Your task to perform on an android device: What's the weather going to be this weekend? Image 0: 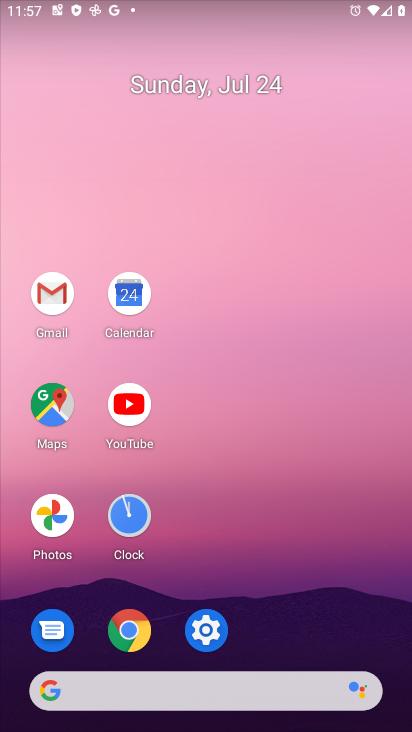
Step 0: click (166, 677)
Your task to perform on an android device: What's the weather going to be this weekend? Image 1: 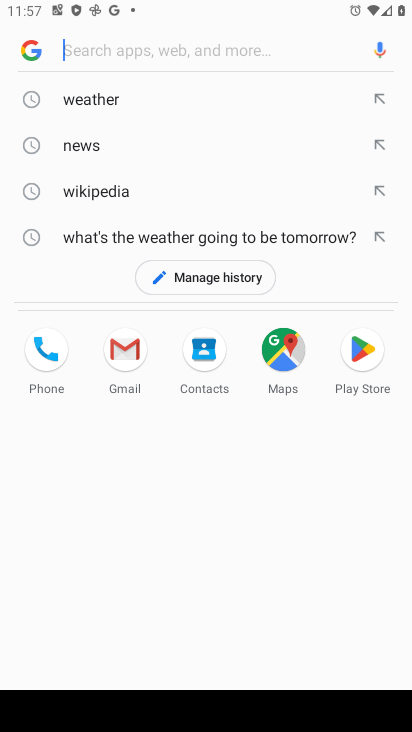
Step 1: click (99, 92)
Your task to perform on an android device: What's the weather going to be this weekend? Image 2: 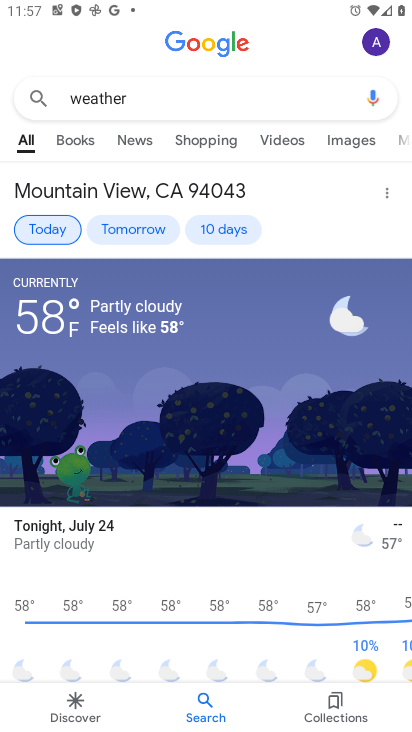
Step 2: click (220, 222)
Your task to perform on an android device: What's the weather going to be this weekend? Image 3: 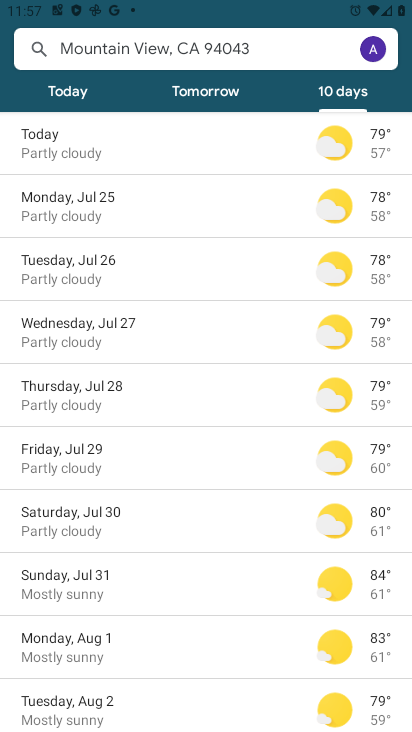
Step 3: task complete